Your task to perform on an android device: open app "Google Pay: Save, Pay, Manage" Image 0: 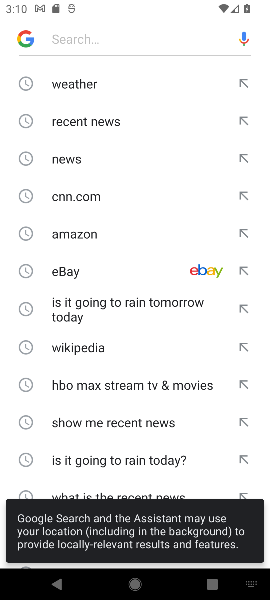
Step 0: press home button
Your task to perform on an android device: open app "Google Pay: Save, Pay, Manage" Image 1: 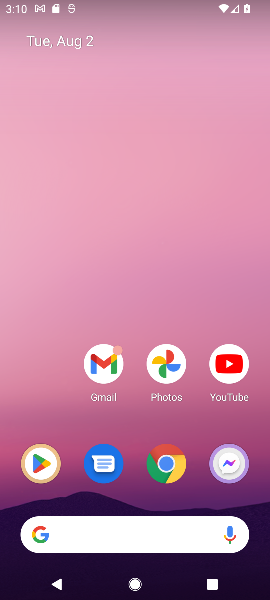
Step 1: click (40, 461)
Your task to perform on an android device: open app "Google Pay: Save, Pay, Manage" Image 2: 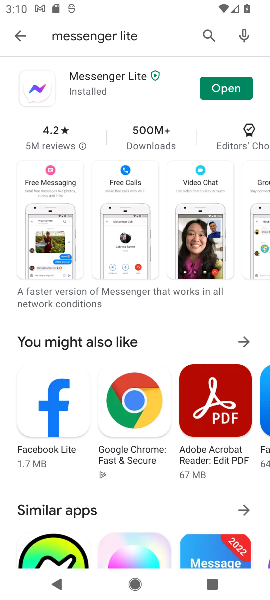
Step 2: click (205, 31)
Your task to perform on an android device: open app "Google Pay: Save, Pay, Manage" Image 3: 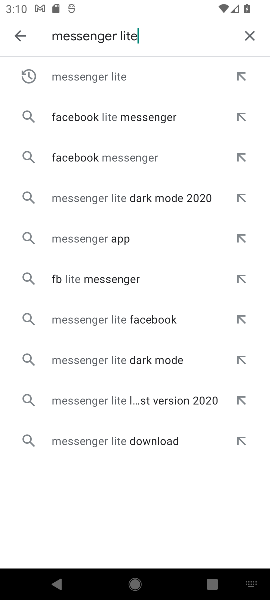
Step 3: click (243, 29)
Your task to perform on an android device: open app "Google Pay: Save, Pay, Manage" Image 4: 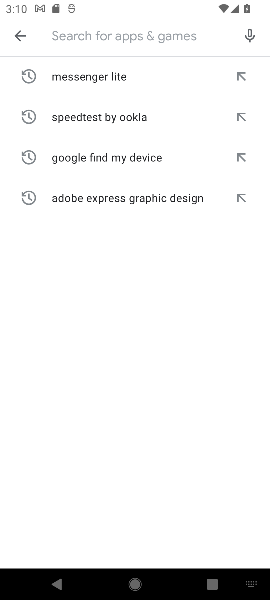
Step 4: type "Google Pay: Save, Pay, Manage"
Your task to perform on an android device: open app "Google Pay: Save, Pay, Manage" Image 5: 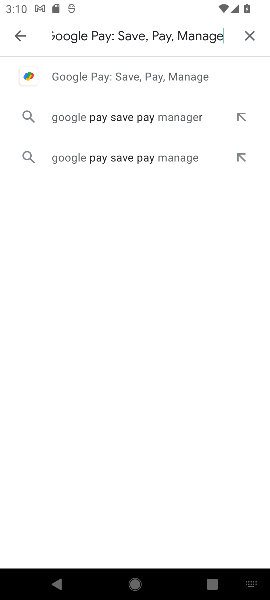
Step 5: click (141, 72)
Your task to perform on an android device: open app "Google Pay: Save, Pay, Manage" Image 6: 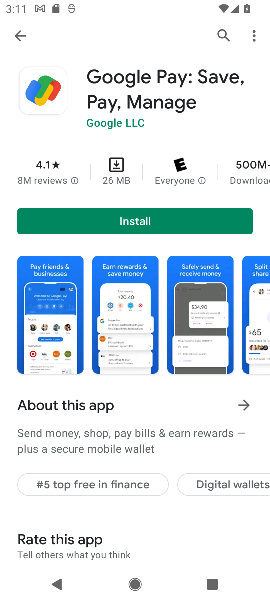
Step 6: task complete